Your task to perform on an android device: Open the phone app and click the voicemail tab. Image 0: 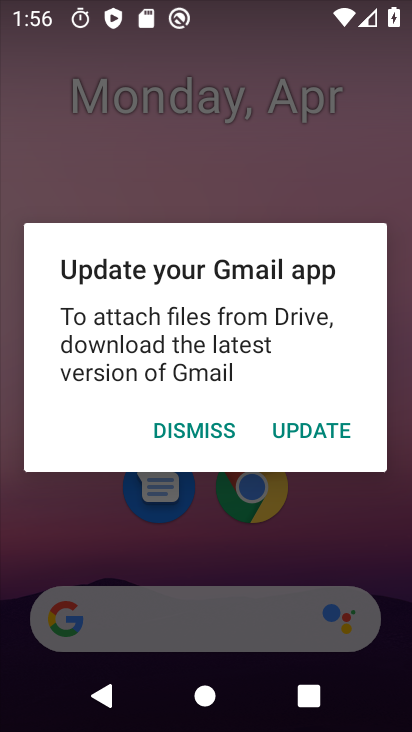
Step 0: press home button
Your task to perform on an android device: Open the phone app and click the voicemail tab. Image 1: 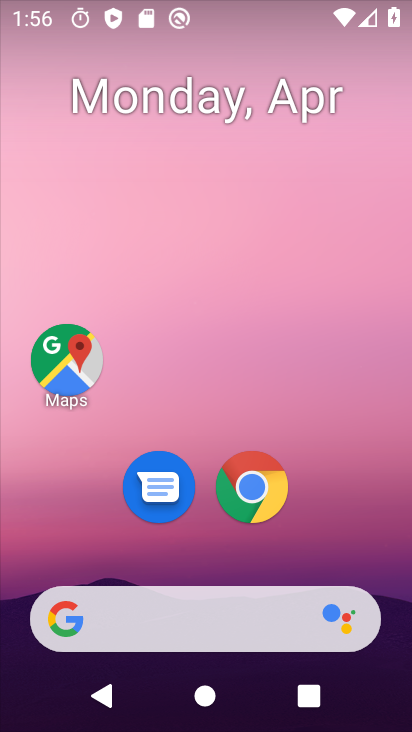
Step 1: drag from (349, 653) to (408, 232)
Your task to perform on an android device: Open the phone app and click the voicemail tab. Image 2: 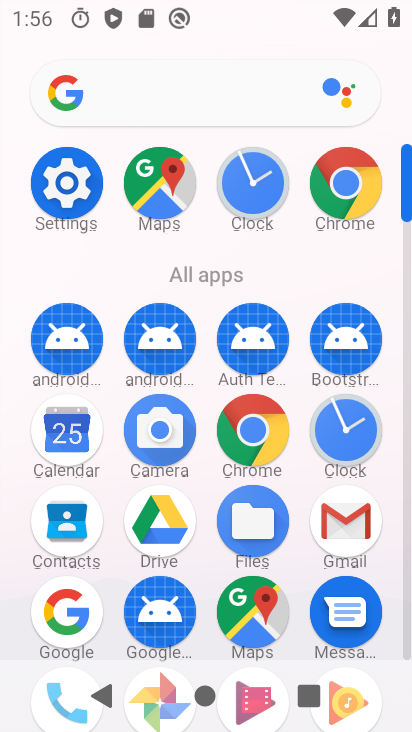
Step 2: drag from (121, 571) to (105, 419)
Your task to perform on an android device: Open the phone app and click the voicemail tab. Image 3: 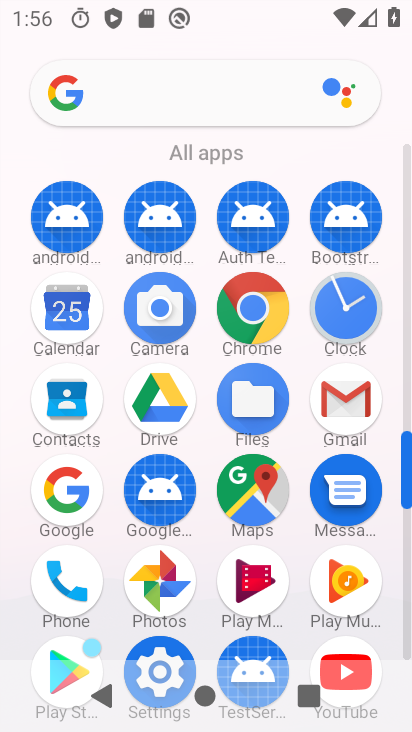
Step 3: click (64, 581)
Your task to perform on an android device: Open the phone app and click the voicemail tab. Image 4: 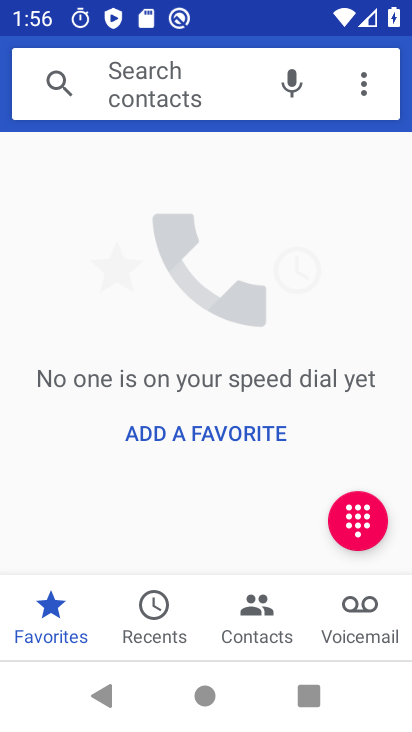
Step 4: click (346, 636)
Your task to perform on an android device: Open the phone app and click the voicemail tab. Image 5: 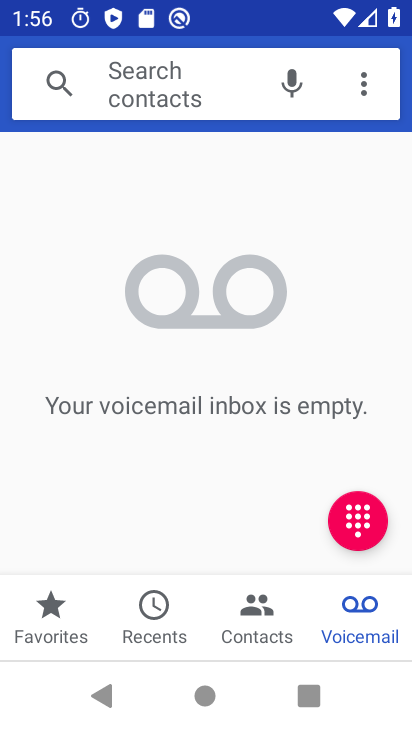
Step 5: task complete